Your task to perform on an android device: Open the stopwatch Image 0: 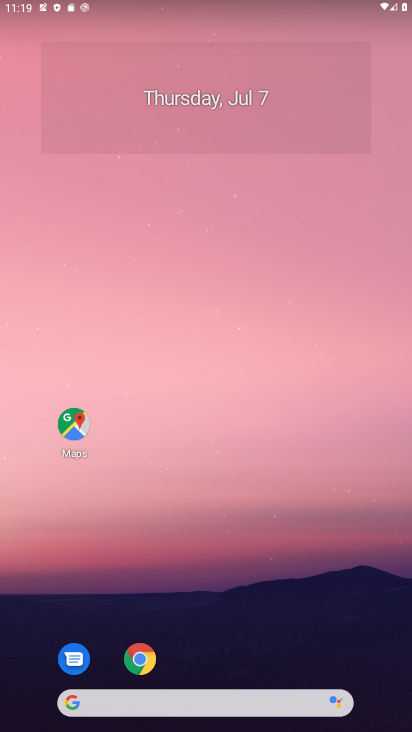
Step 0: drag from (209, 673) to (201, 115)
Your task to perform on an android device: Open the stopwatch Image 1: 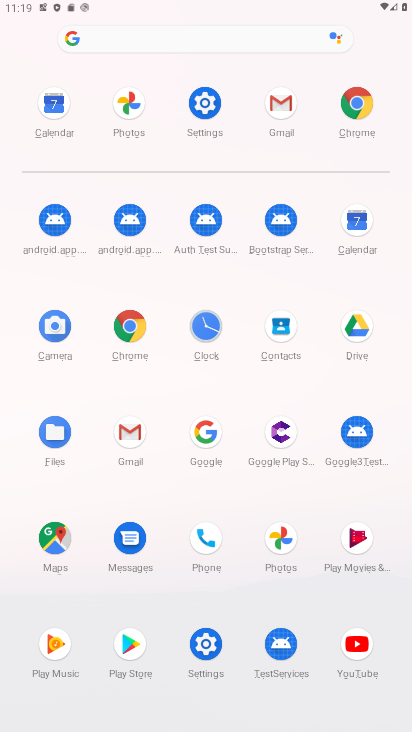
Step 1: click (204, 320)
Your task to perform on an android device: Open the stopwatch Image 2: 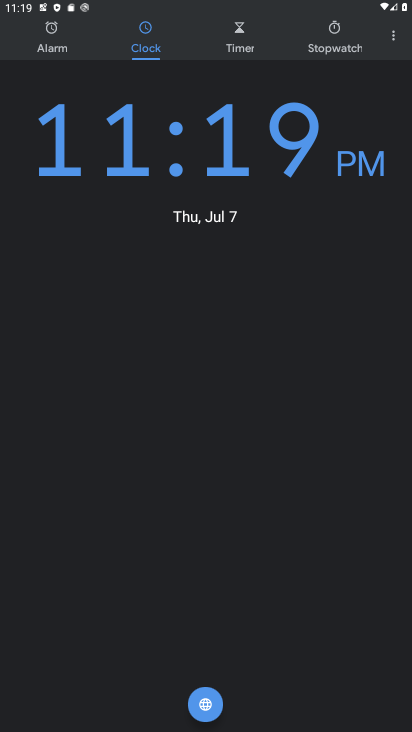
Step 2: click (332, 26)
Your task to perform on an android device: Open the stopwatch Image 3: 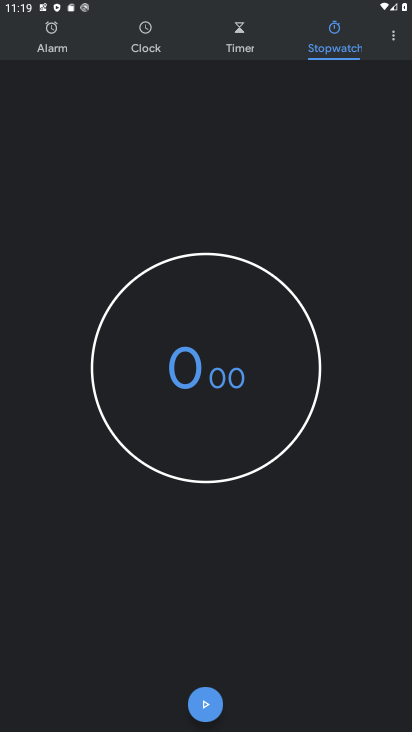
Step 3: click (201, 698)
Your task to perform on an android device: Open the stopwatch Image 4: 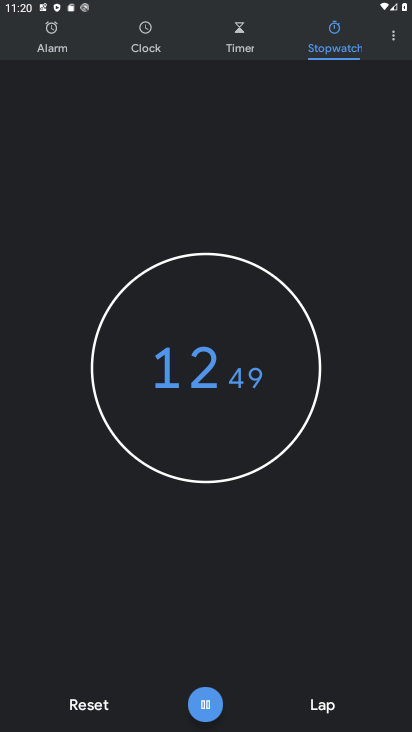
Step 4: task complete